Your task to perform on an android device: change keyboard looks Image 0: 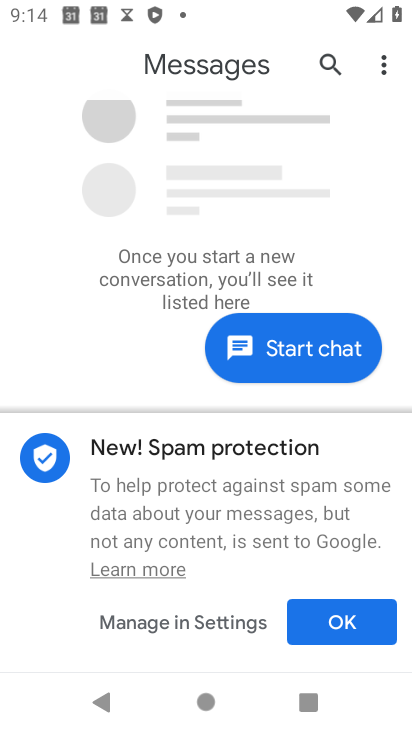
Step 0: press home button
Your task to perform on an android device: change keyboard looks Image 1: 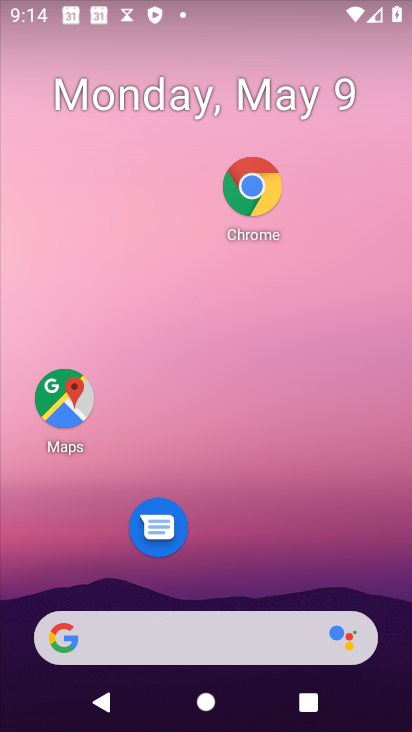
Step 1: drag from (214, 575) to (231, 28)
Your task to perform on an android device: change keyboard looks Image 2: 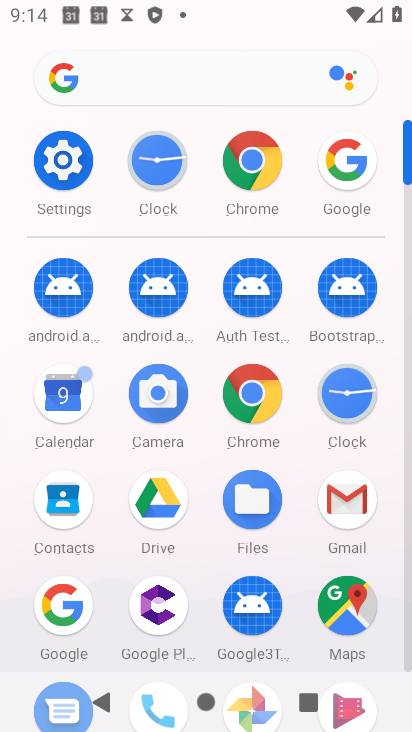
Step 2: click (47, 155)
Your task to perform on an android device: change keyboard looks Image 3: 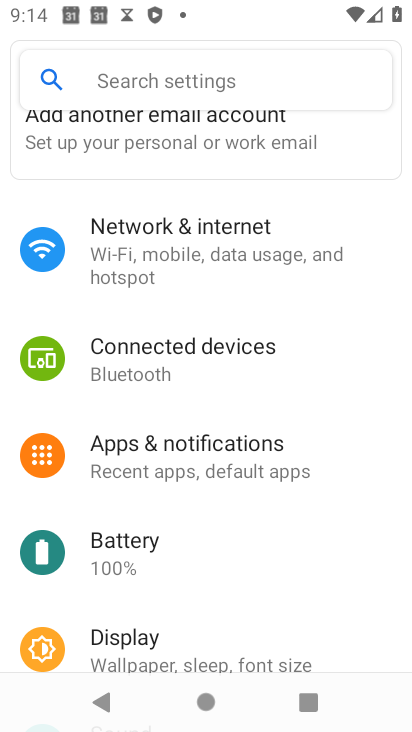
Step 3: drag from (181, 597) to (188, 426)
Your task to perform on an android device: change keyboard looks Image 4: 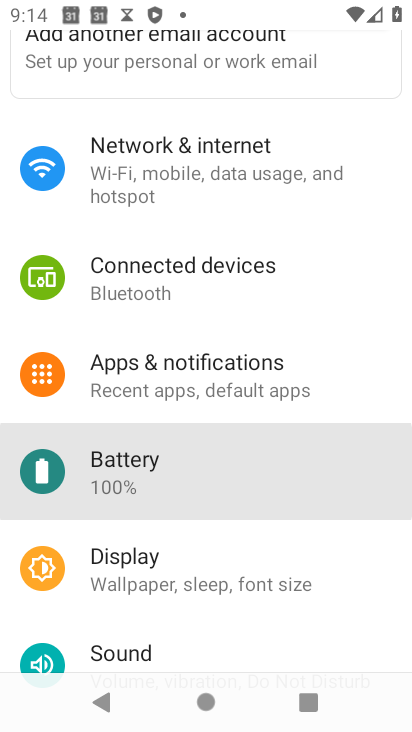
Step 4: drag from (208, 241) to (254, 0)
Your task to perform on an android device: change keyboard looks Image 5: 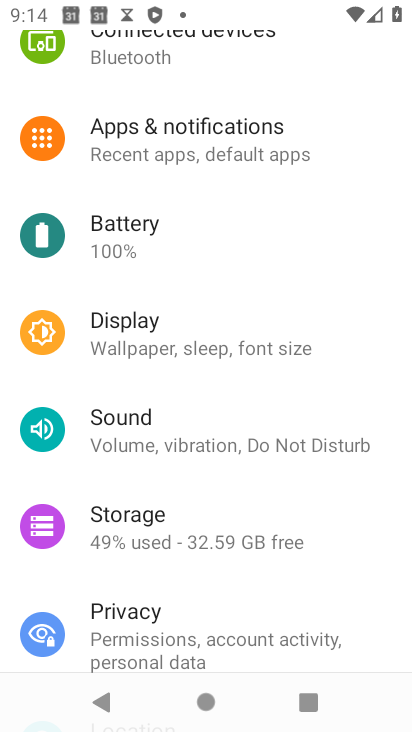
Step 5: drag from (166, 602) to (212, 212)
Your task to perform on an android device: change keyboard looks Image 6: 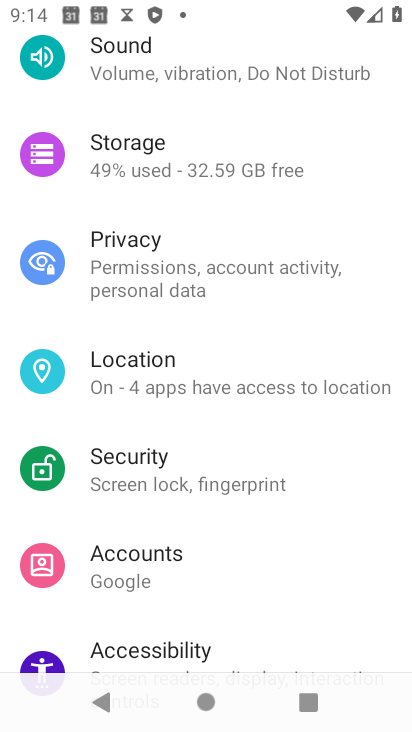
Step 6: drag from (184, 633) to (252, 202)
Your task to perform on an android device: change keyboard looks Image 7: 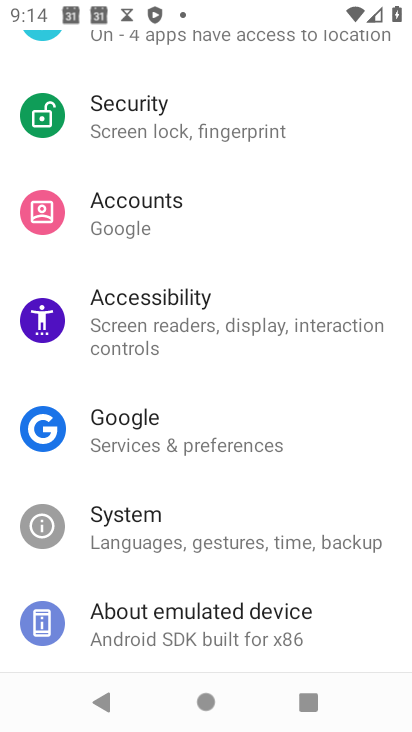
Step 7: click (199, 506)
Your task to perform on an android device: change keyboard looks Image 8: 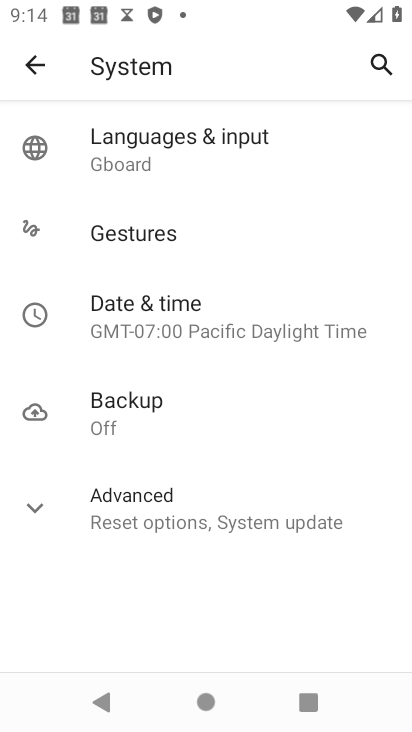
Step 8: click (173, 156)
Your task to perform on an android device: change keyboard looks Image 9: 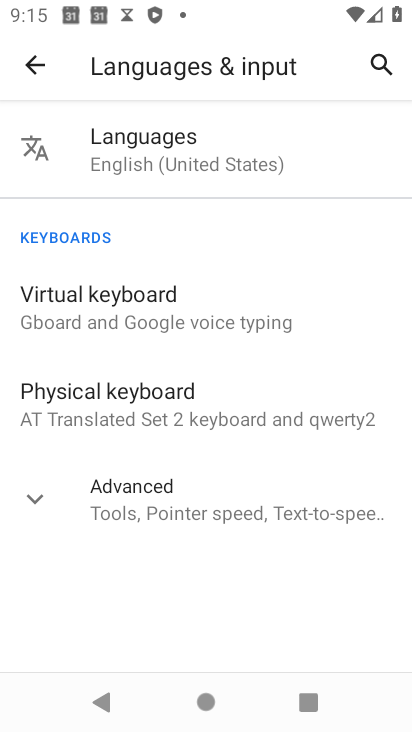
Step 9: click (97, 295)
Your task to perform on an android device: change keyboard looks Image 10: 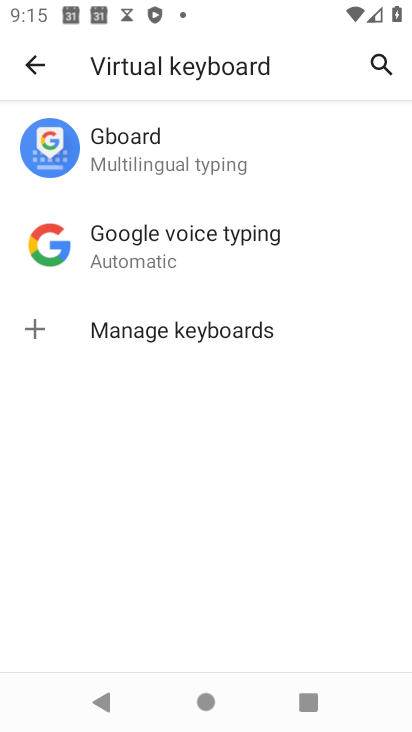
Step 10: click (147, 151)
Your task to perform on an android device: change keyboard looks Image 11: 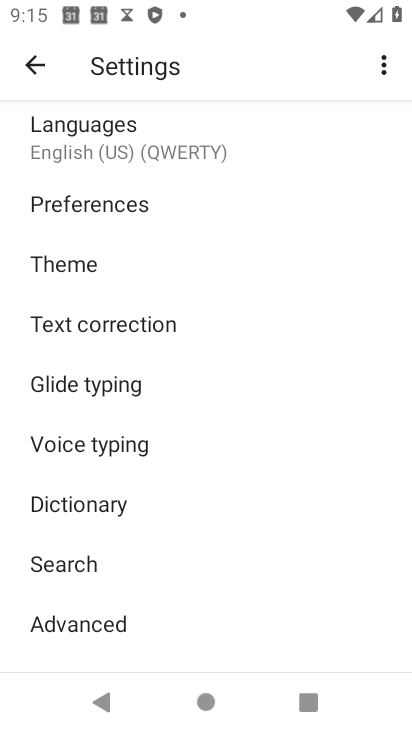
Step 11: click (102, 267)
Your task to perform on an android device: change keyboard looks Image 12: 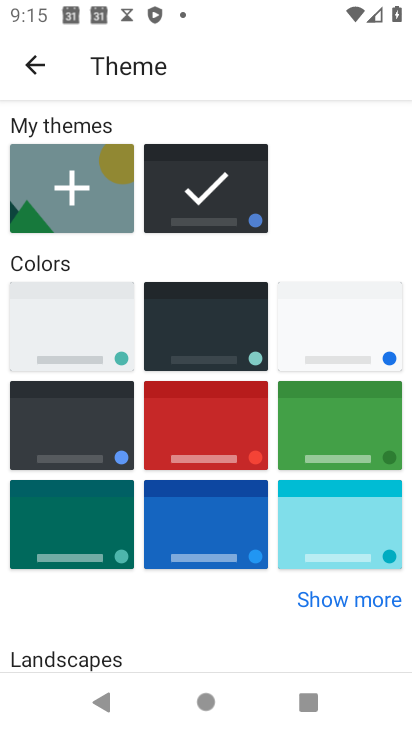
Step 12: click (345, 324)
Your task to perform on an android device: change keyboard looks Image 13: 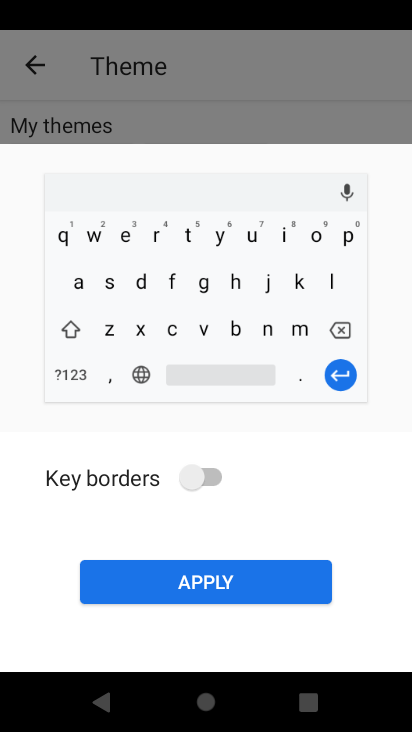
Step 13: click (204, 582)
Your task to perform on an android device: change keyboard looks Image 14: 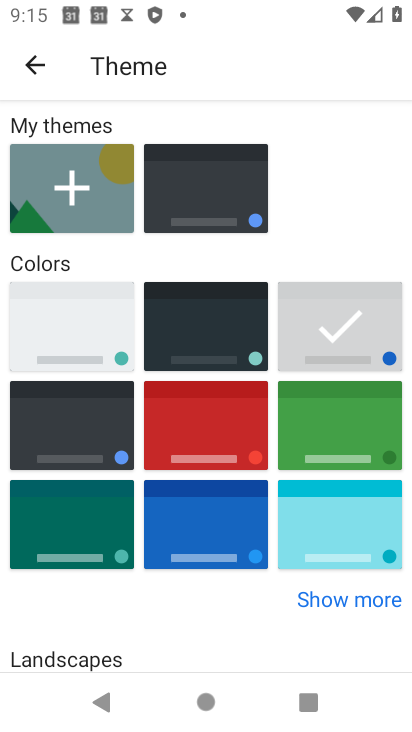
Step 14: task complete